Your task to perform on an android device: Open Youtube and go to "Your channel" Image 0: 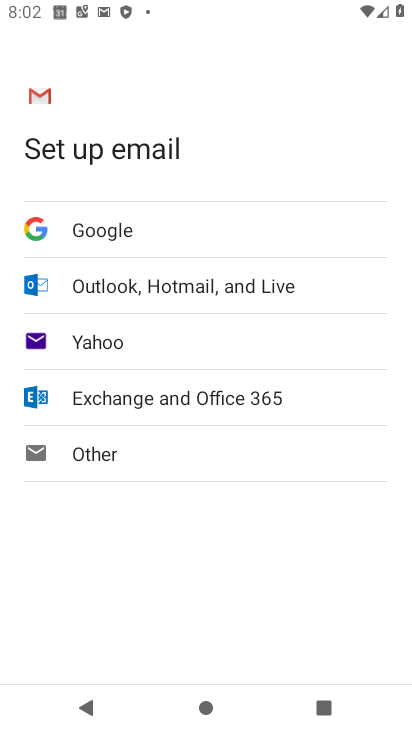
Step 0: press home button
Your task to perform on an android device: Open Youtube and go to "Your channel" Image 1: 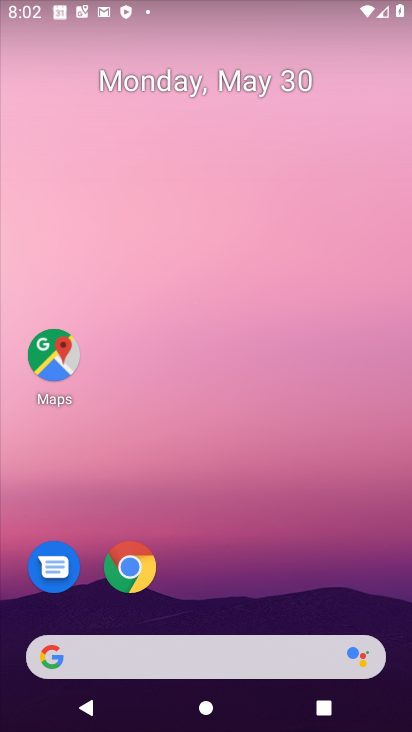
Step 1: drag from (274, 570) to (204, 188)
Your task to perform on an android device: Open Youtube and go to "Your channel" Image 2: 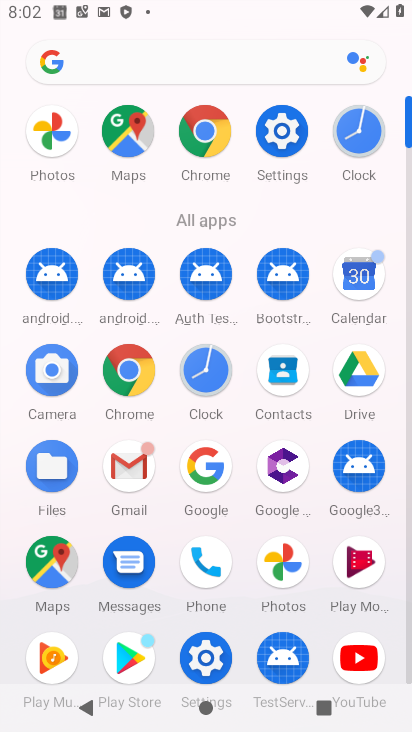
Step 2: click (375, 668)
Your task to perform on an android device: Open Youtube and go to "Your channel" Image 3: 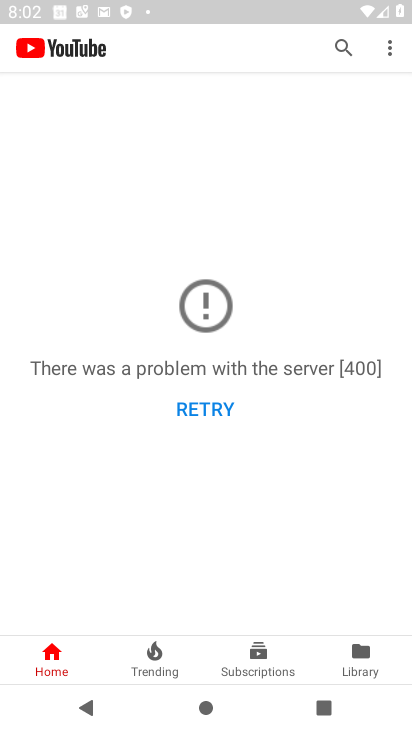
Step 3: click (357, 646)
Your task to perform on an android device: Open Youtube and go to "Your channel" Image 4: 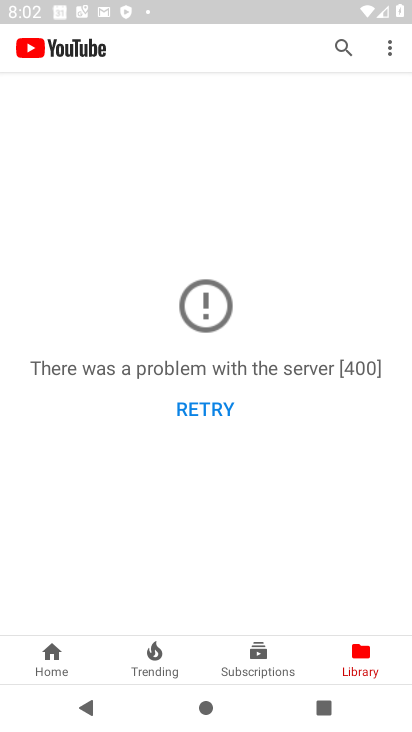
Step 4: task complete